Your task to perform on an android device: Do I have any events tomorrow? Image 0: 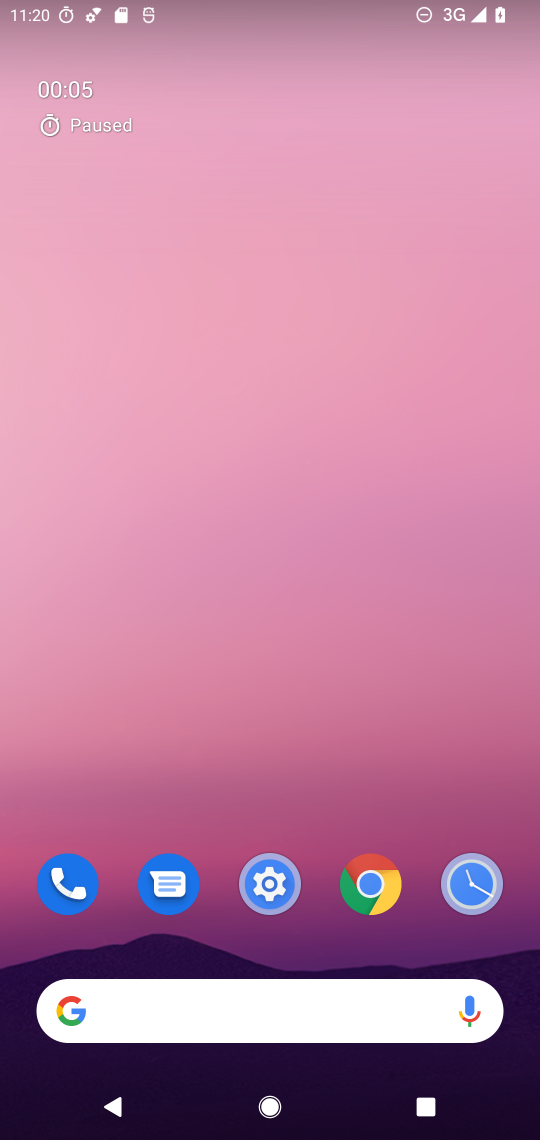
Step 0: drag from (274, 762) to (227, 125)
Your task to perform on an android device: Do I have any events tomorrow? Image 1: 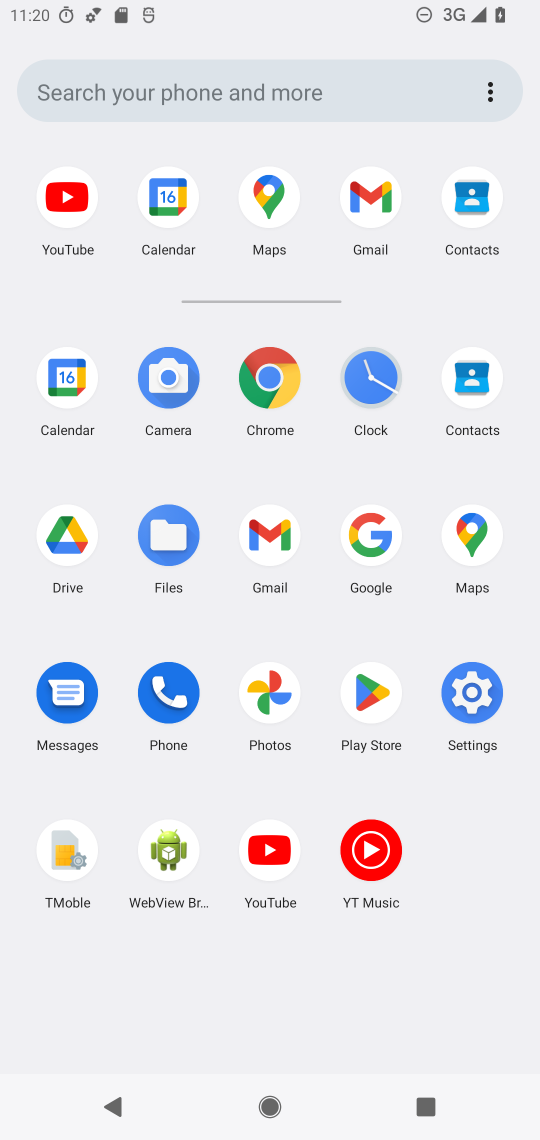
Step 1: click (68, 379)
Your task to perform on an android device: Do I have any events tomorrow? Image 2: 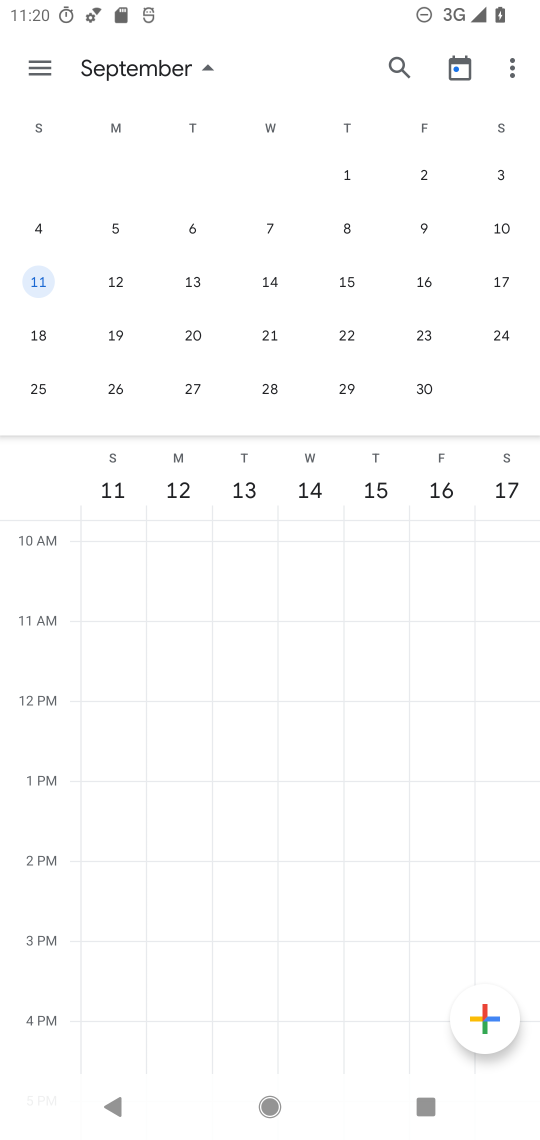
Step 2: click (158, 61)
Your task to perform on an android device: Do I have any events tomorrow? Image 3: 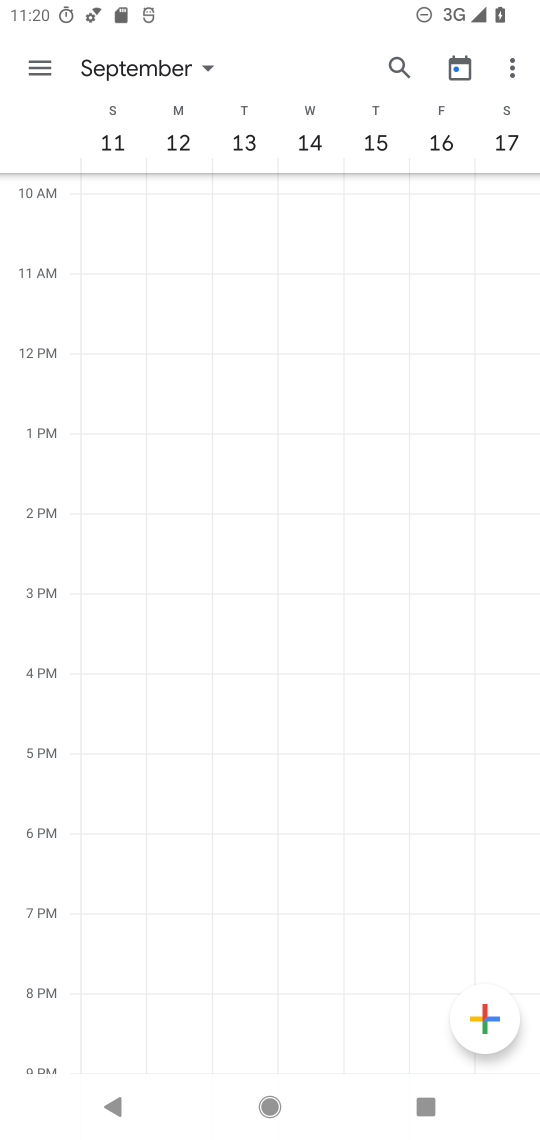
Step 3: click (158, 61)
Your task to perform on an android device: Do I have any events tomorrow? Image 4: 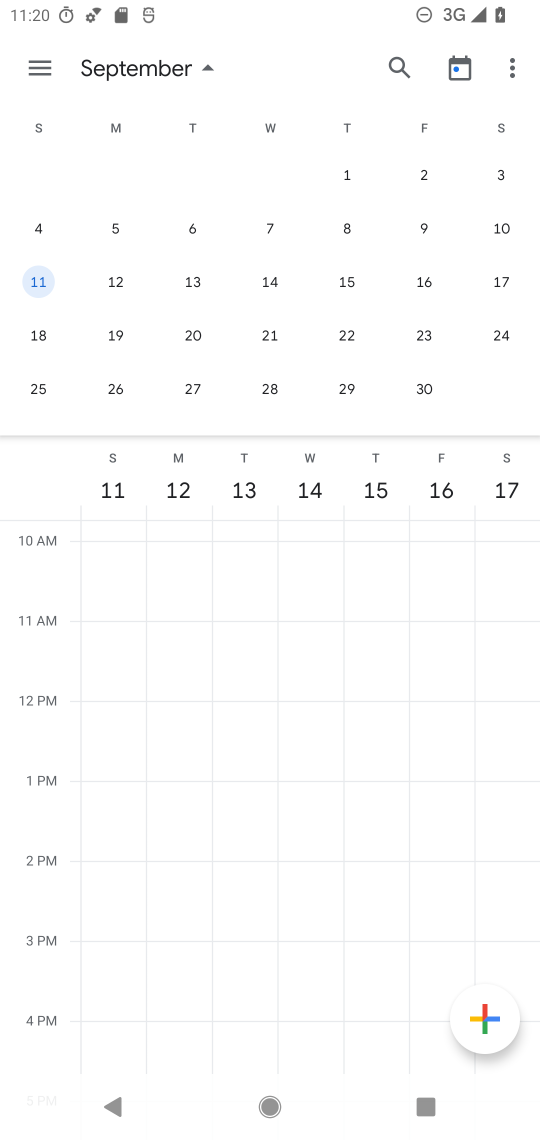
Step 4: drag from (50, 259) to (537, 301)
Your task to perform on an android device: Do I have any events tomorrow? Image 5: 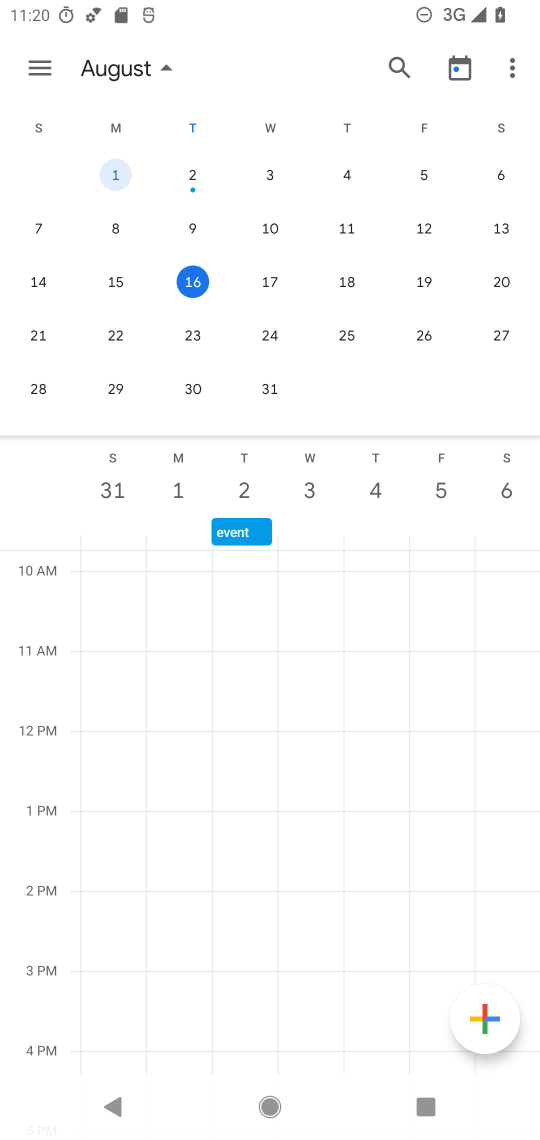
Step 5: click (265, 277)
Your task to perform on an android device: Do I have any events tomorrow? Image 6: 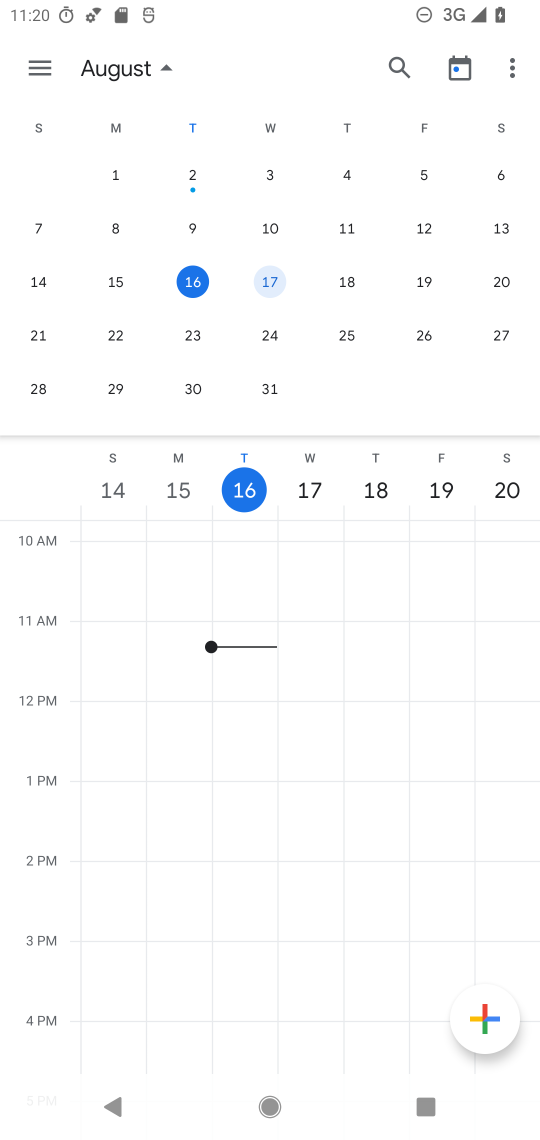
Step 6: task complete